Your task to perform on an android device: Open display settings Image 0: 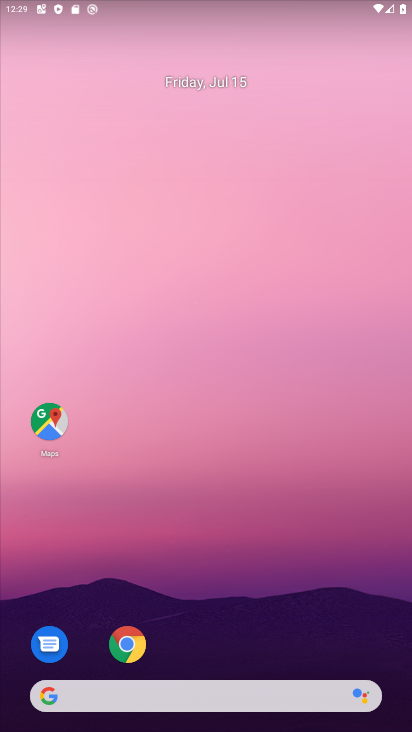
Step 0: drag from (111, 445) to (298, 71)
Your task to perform on an android device: Open display settings Image 1: 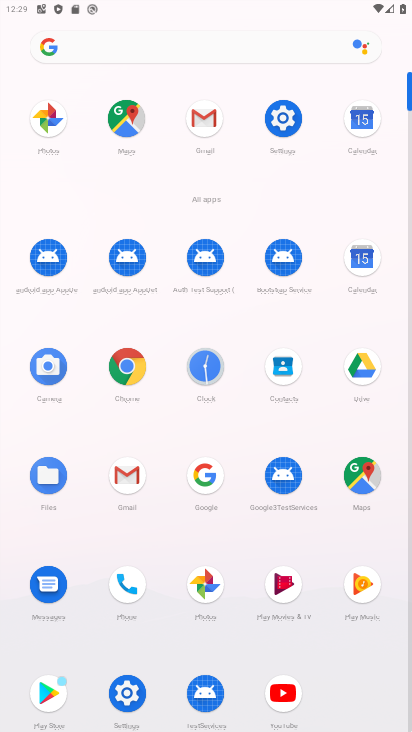
Step 1: click (280, 131)
Your task to perform on an android device: Open display settings Image 2: 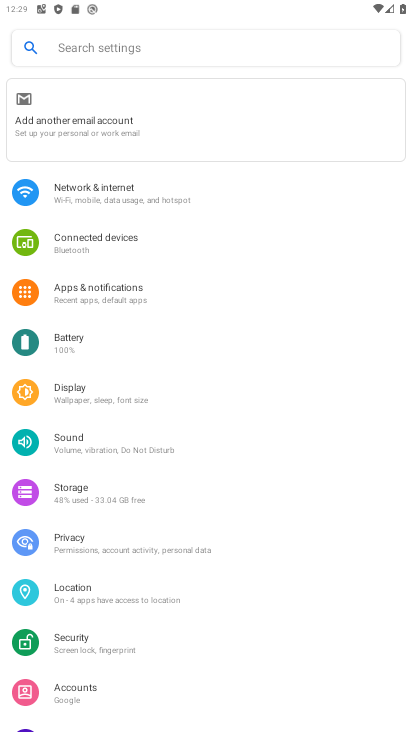
Step 2: click (95, 385)
Your task to perform on an android device: Open display settings Image 3: 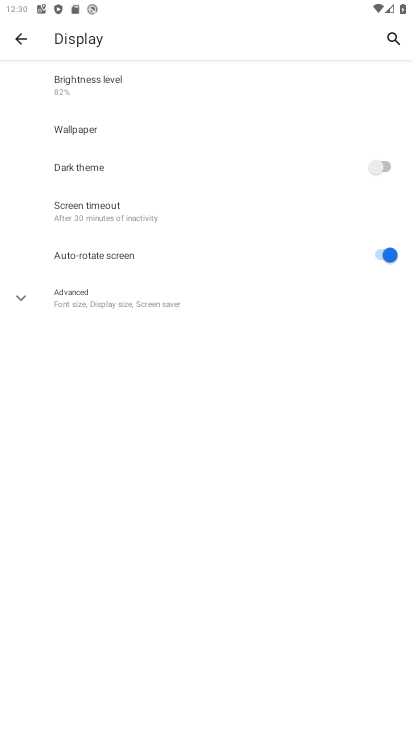
Step 3: task complete